Your task to perform on an android device: turn vacation reply on in the gmail app Image 0: 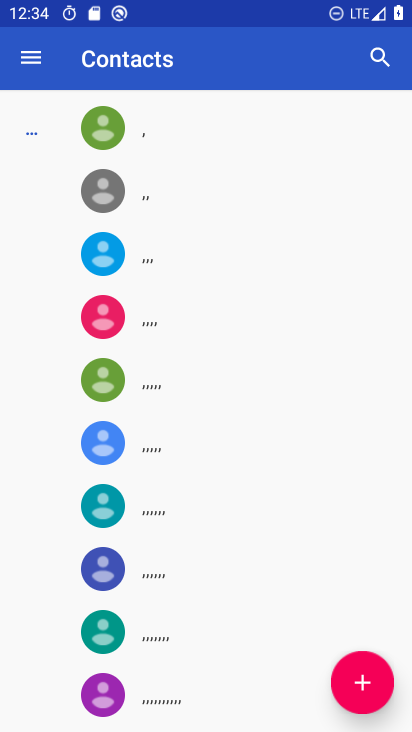
Step 0: press home button
Your task to perform on an android device: turn vacation reply on in the gmail app Image 1: 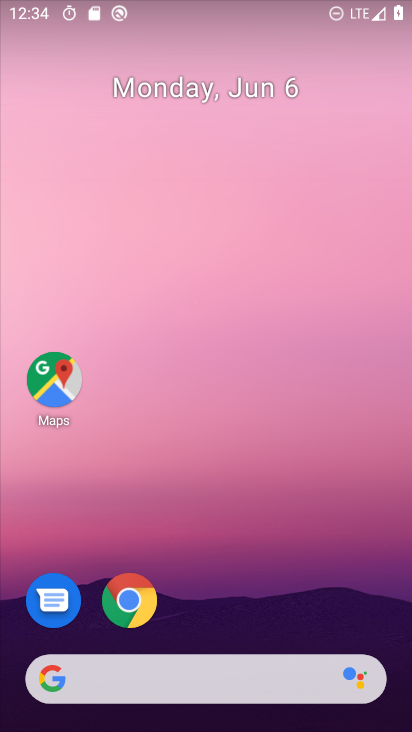
Step 1: drag from (216, 625) to (251, 285)
Your task to perform on an android device: turn vacation reply on in the gmail app Image 2: 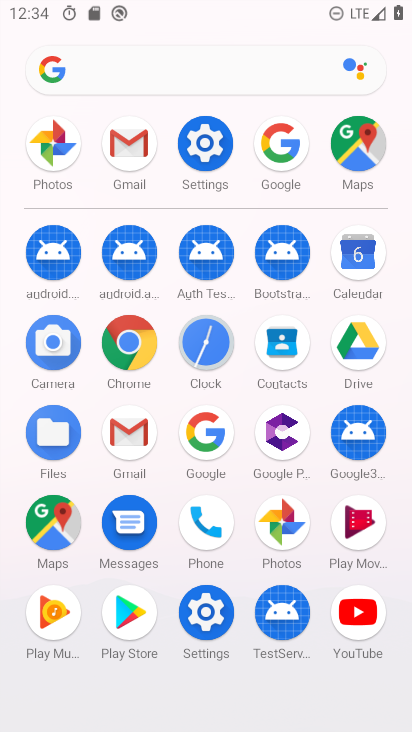
Step 2: click (116, 165)
Your task to perform on an android device: turn vacation reply on in the gmail app Image 3: 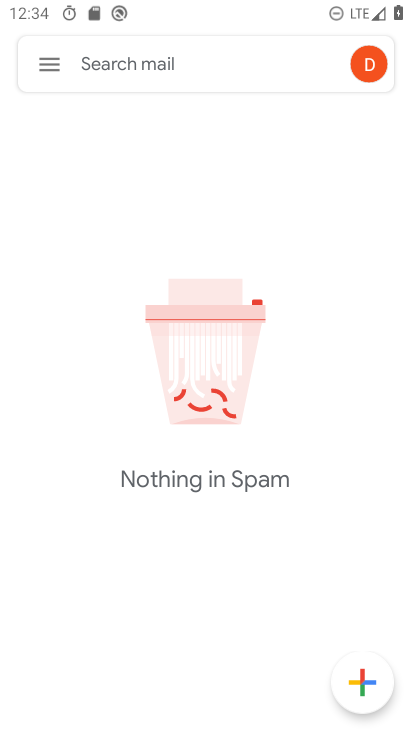
Step 3: click (47, 69)
Your task to perform on an android device: turn vacation reply on in the gmail app Image 4: 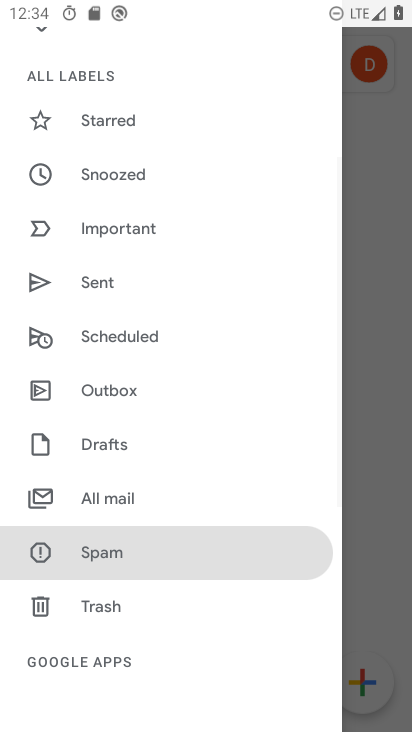
Step 4: drag from (183, 611) to (213, 261)
Your task to perform on an android device: turn vacation reply on in the gmail app Image 5: 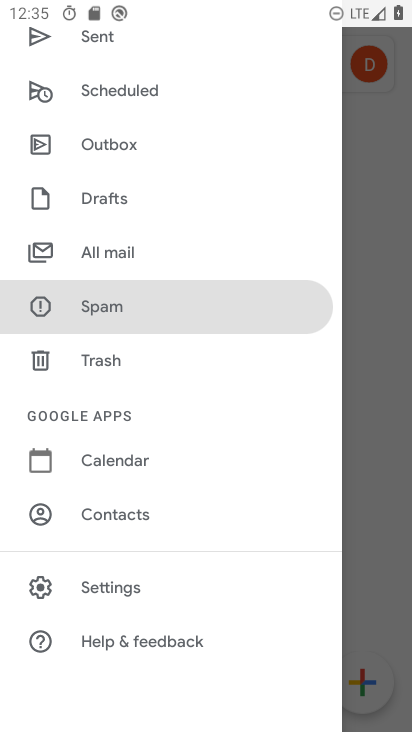
Step 5: click (86, 598)
Your task to perform on an android device: turn vacation reply on in the gmail app Image 6: 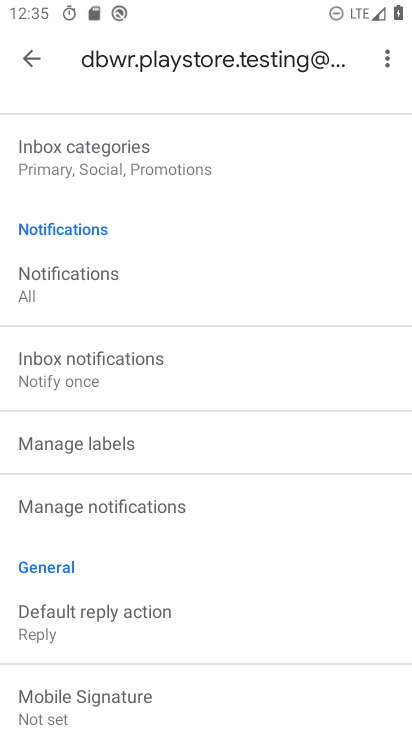
Step 6: drag from (183, 667) to (188, 395)
Your task to perform on an android device: turn vacation reply on in the gmail app Image 7: 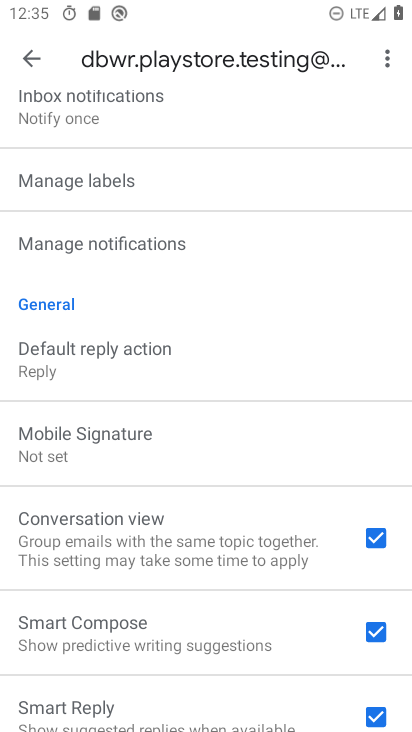
Step 7: drag from (204, 615) to (250, 347)
Your task to perform on an android device: turn vacation reply on in the gmail app Image 8: 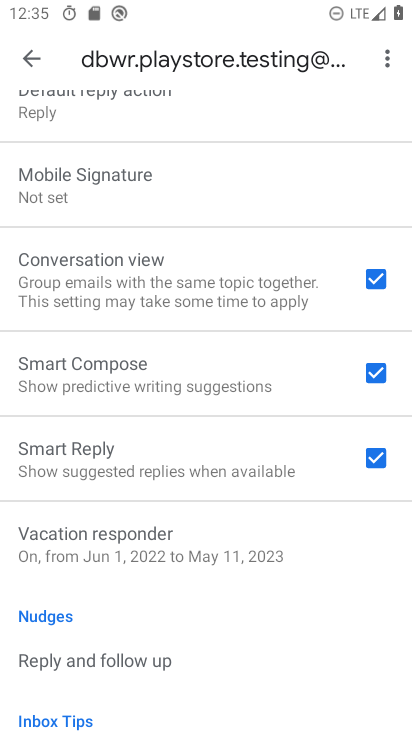
Step 8: drag from (183, 630) to (223, 443)
Your task to perform on an android device: turn vacation reply on in the gmail app Image 9: 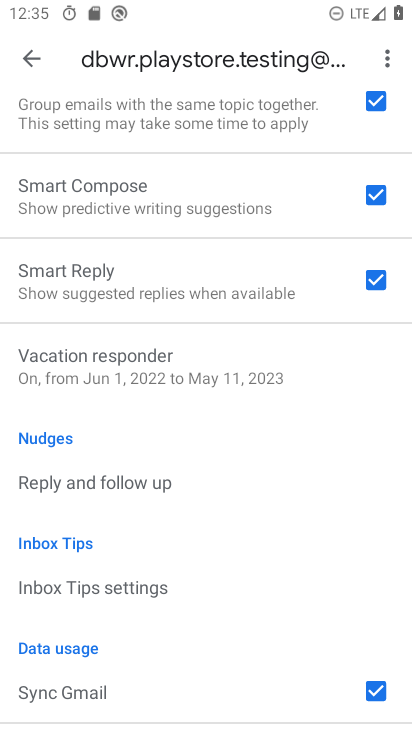
Step 9: click (155, 369)
Your task to perform on an android device: turn vacation reply on in the gmail app Image 10: 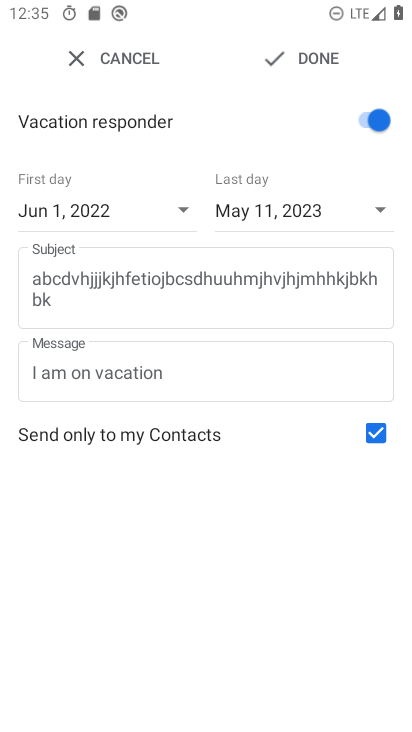
Step 10: task complete